Your task to perform on an android device: Is it going to rain today? Image 0: 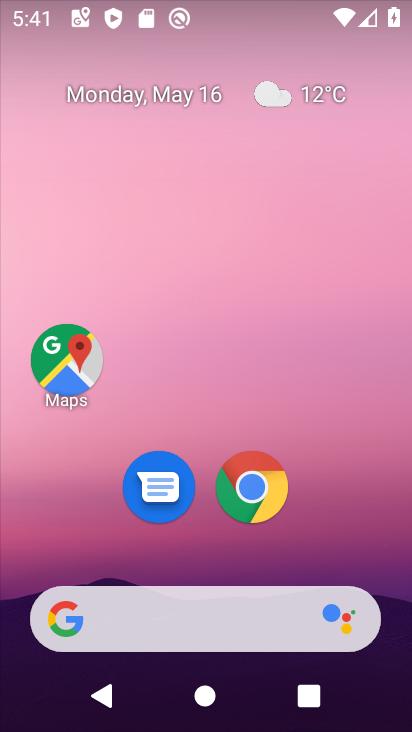
Step 0: drag from (316, 538) to (328, 129)
Your task to perform on an android device: Is it going to rain today? Image 1: 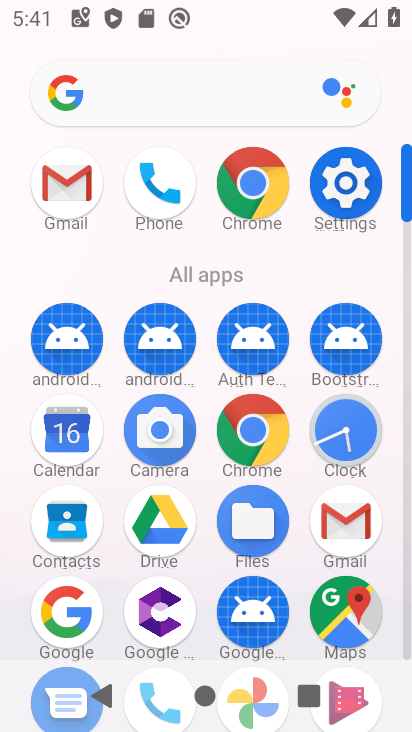
Step 1: press home button
Your task to perform on an android device: Is it going to rain today? Image 2: 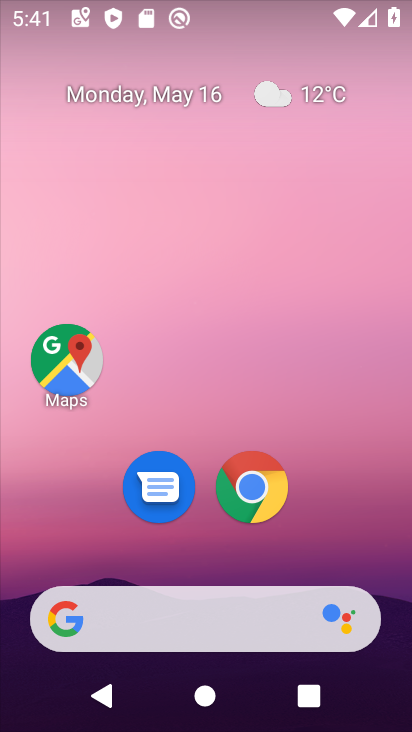
Step 2: click (338, 97)
Your task to perform on an android device: Is it going to rain today? Image 3: 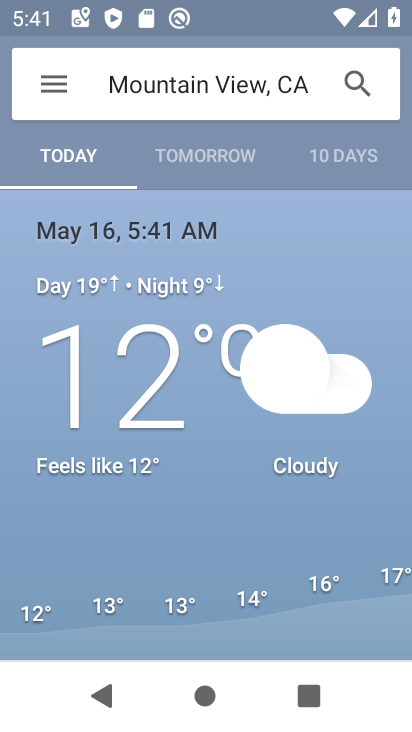
Step 3: task complete